Your task to perform on an android device: add a label to a message in the gmail app Image 0: 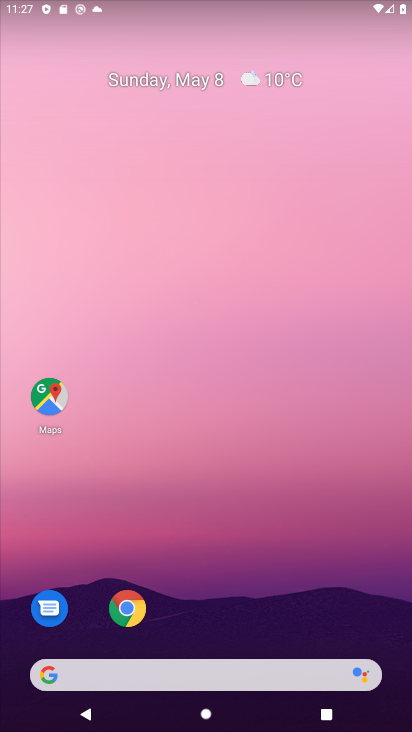
Step 0: drag from (301, 634) to (285, 152)
Your task to perform on an android device: add a label to a message in the gmail app Image 1: 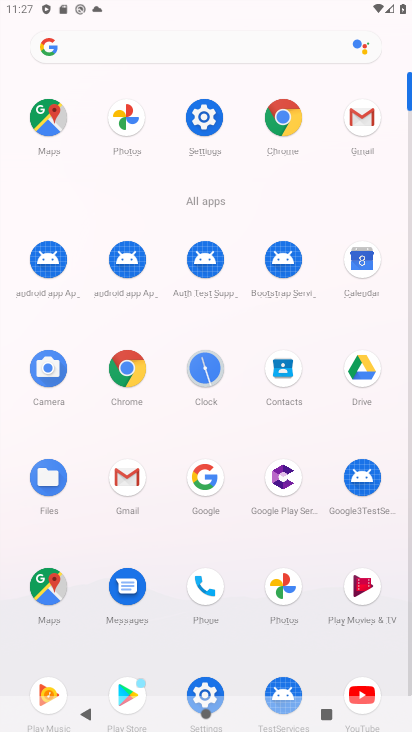
Step 1: click (135, 489)
Your task to perform on an android device: add a label to a message in the gmail app Image 2: 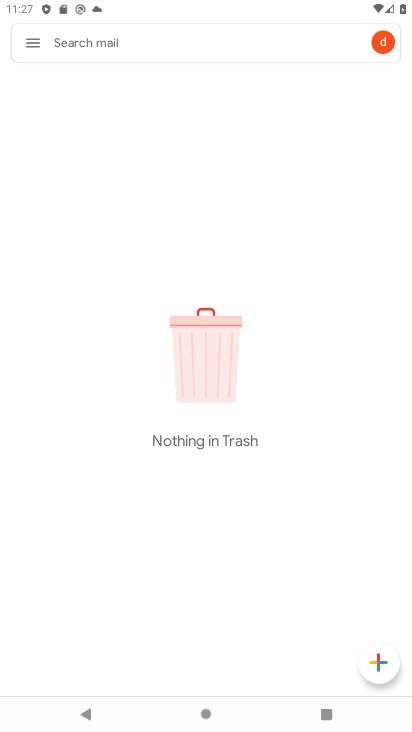
Step 2: click (22, 47)
Your task to perform on an android device: add a label to a message in the gmail app Image 3: 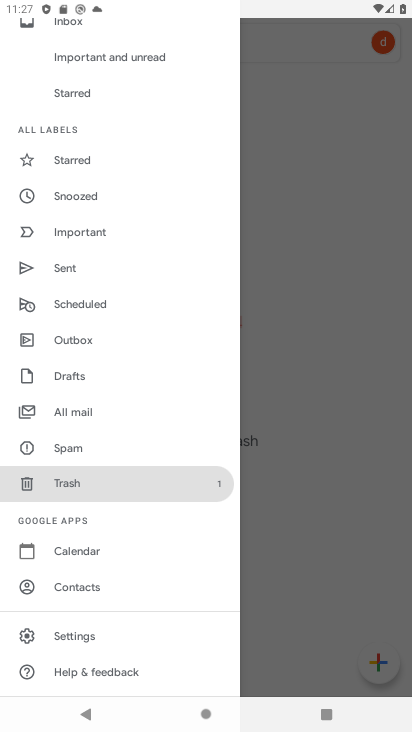
Step 3: click (96, 405)
Your task to perform on an android device: add a label to a message in the gmail app Image 4: 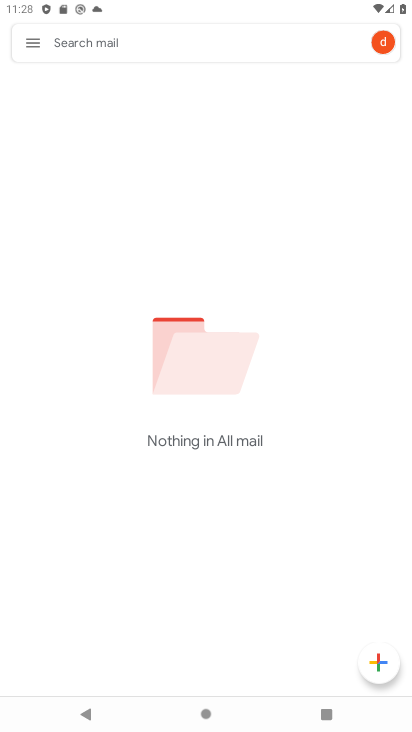
Step 4: task complete